Your task to perform on an android device: change keyboard looks Image 0: 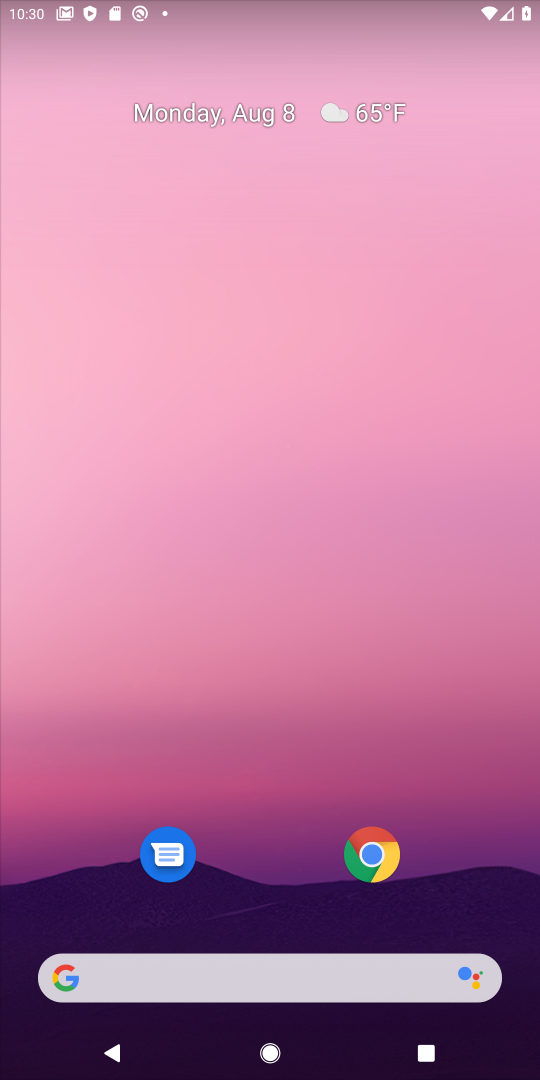
Step 0: drag from (276, 871) to (263, 9)
Your task to perform on an android device: change keyboard looks Image 1: 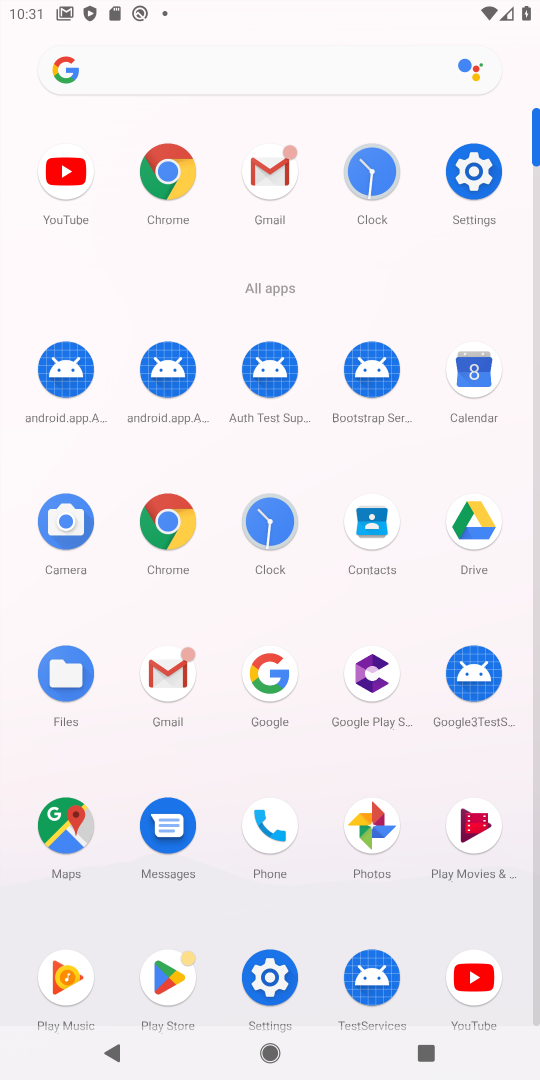
Step 1: click (463, 186)
Your task to perform on an android device: change keyboard looks Image 2: 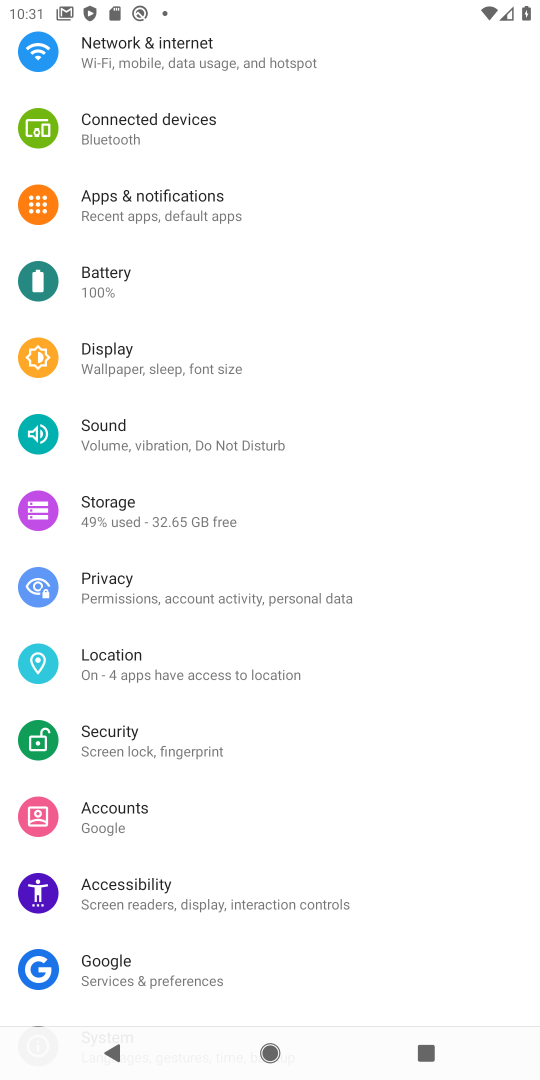
Step 2: drag from (190, 770) to (204, 325)
Your task to perform on an android device: change keyboard looks Image 3: 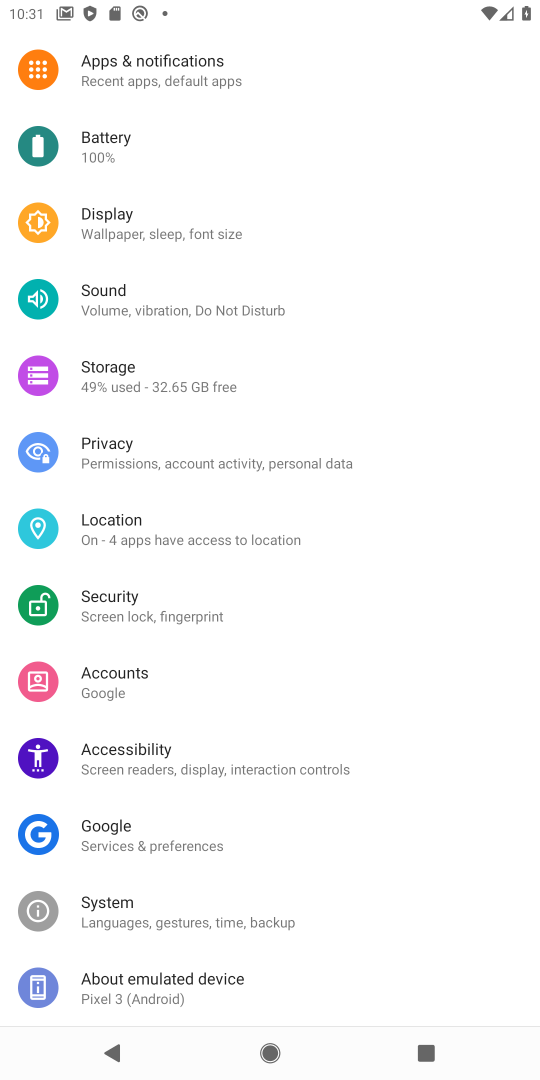
Step 3: click (125, 906)
Your task to perform on an android device: change keyboard looks Image 4: 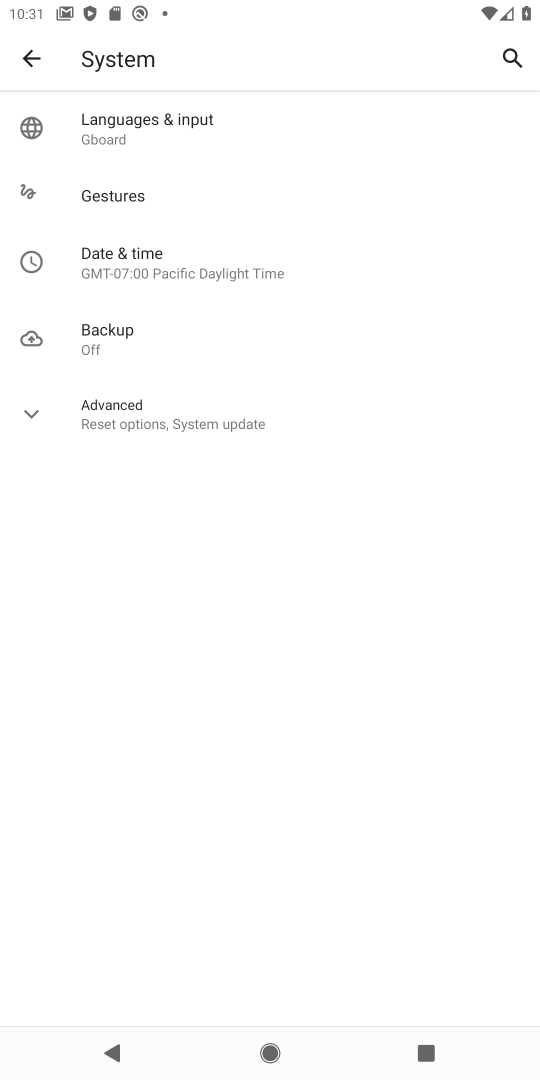
Step 4: click (102, 114)
Your task to perform on an android device: change keyboard looks Image 5: 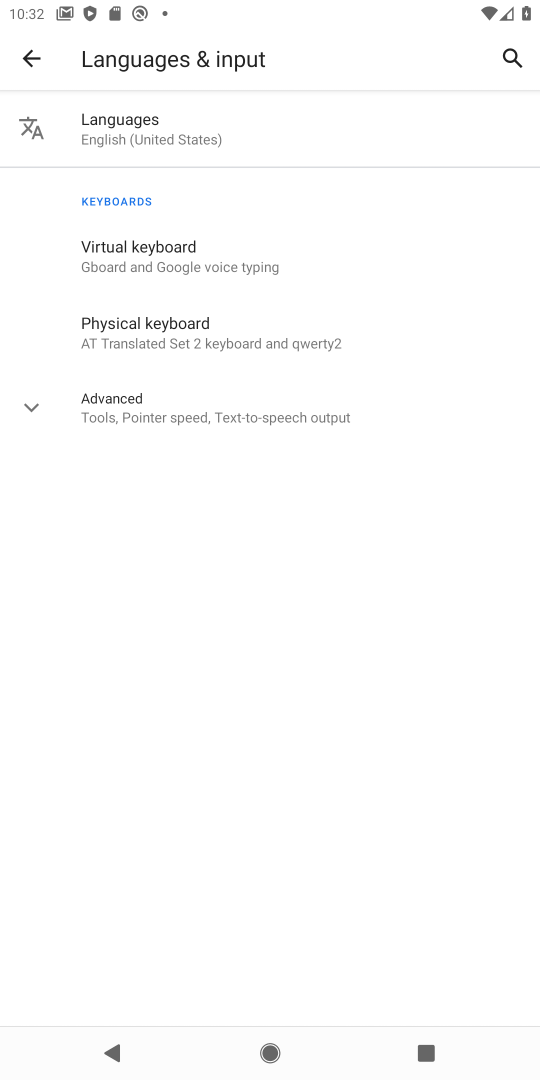
Step 5: click (189, 246)
Your task to perform on an android device: change keyboard looks Image 6: 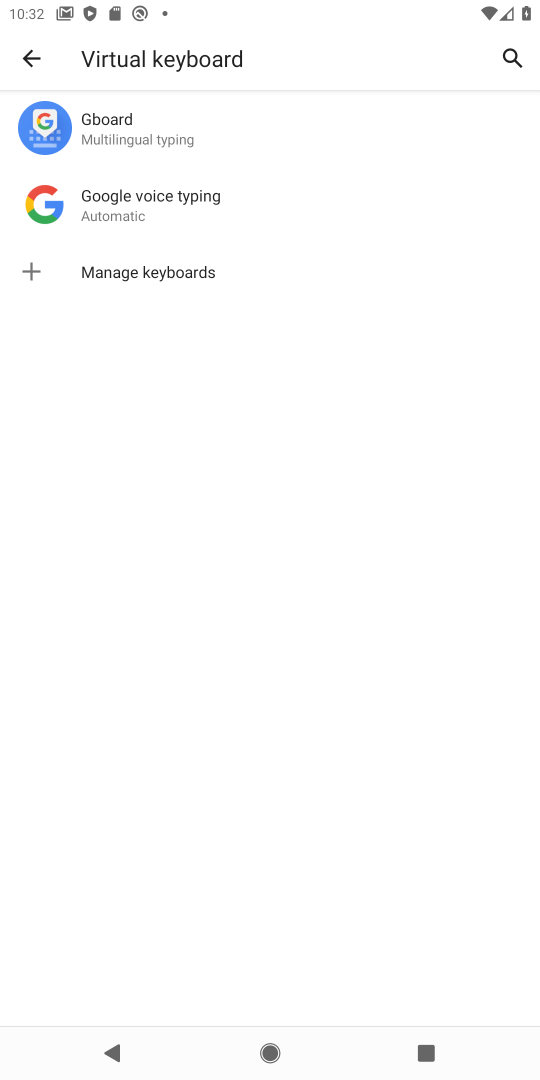
Step 6: click (152, 153)
Your task to perform on an android device: change keyboard looks Image 7: 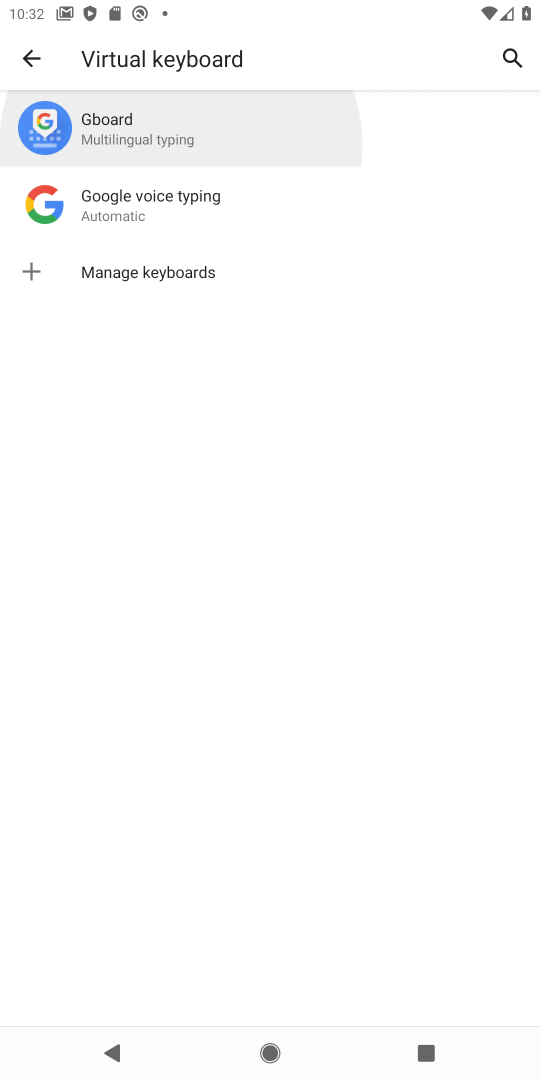
Step 7: click (189, 138)
Your task to perform on an android device: change keyboard looks Image 8: 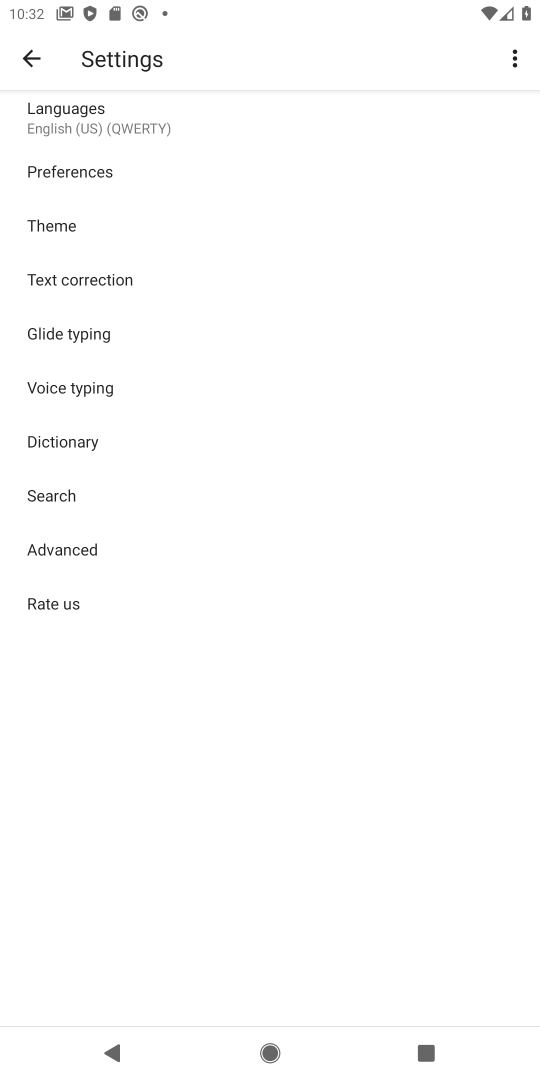
Step 8: click (113, 229)
Your task to perform on an android device: change keyboard looks Image 9: 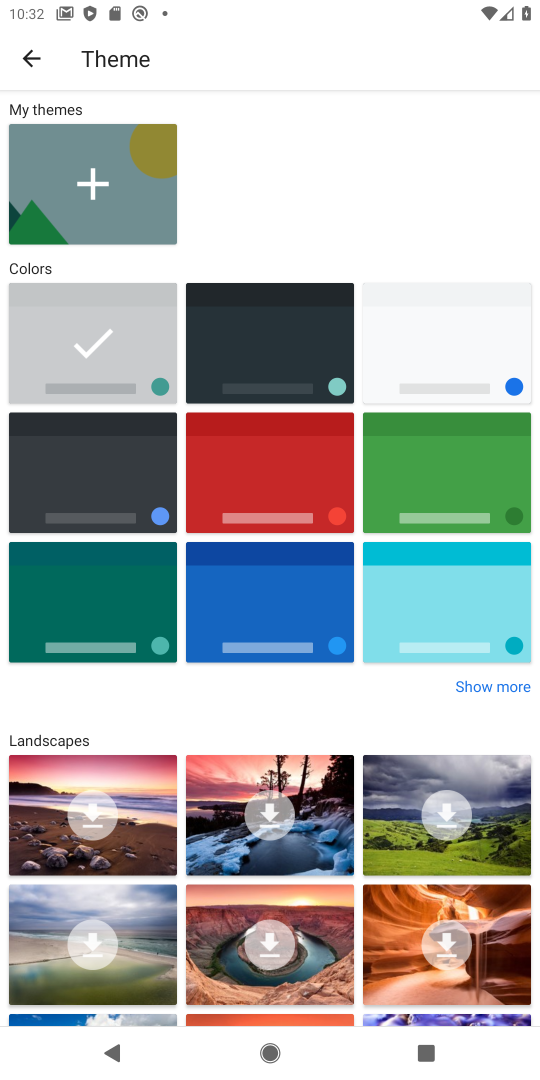
Step 9: click (293, 619)
Your task to perform on an android device: change keyboard looks Image 10: 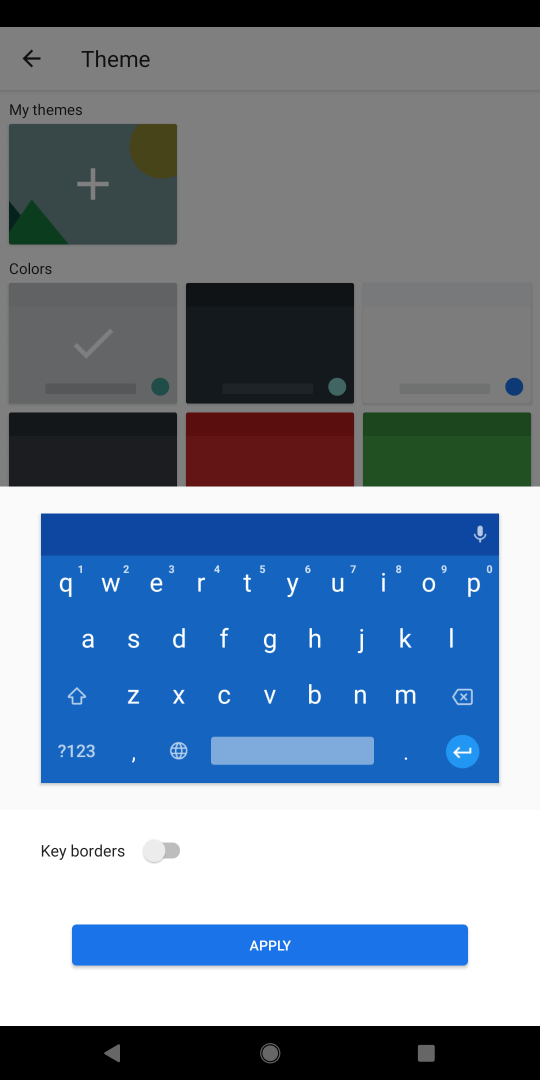
Step 10: click (167, 846)
Your task to perform on an android device: change keyboard looks Image 11: 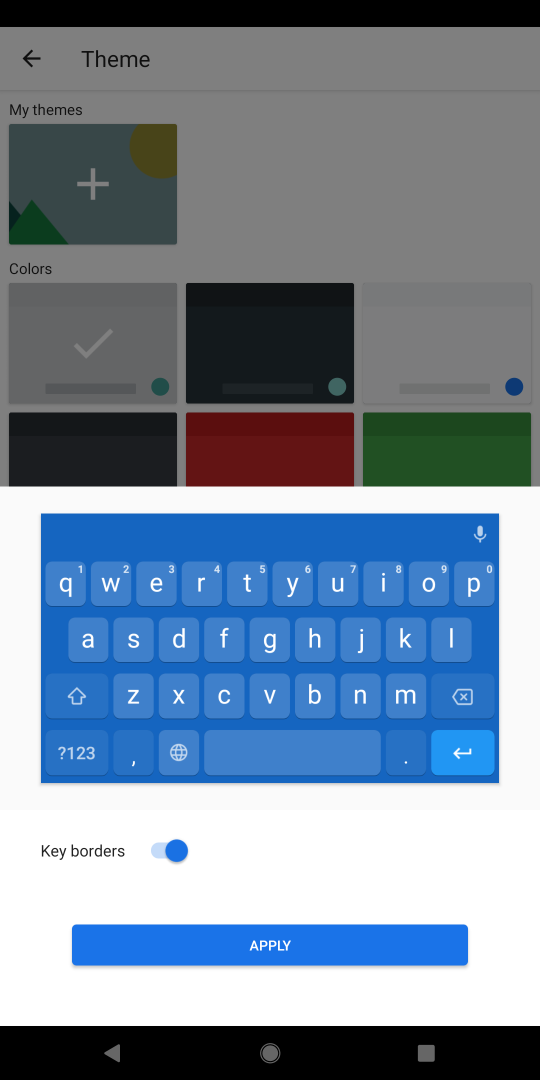
Step 11: click (257, 937)
Your task to perform on an android device: change keyboard looks Image 12: 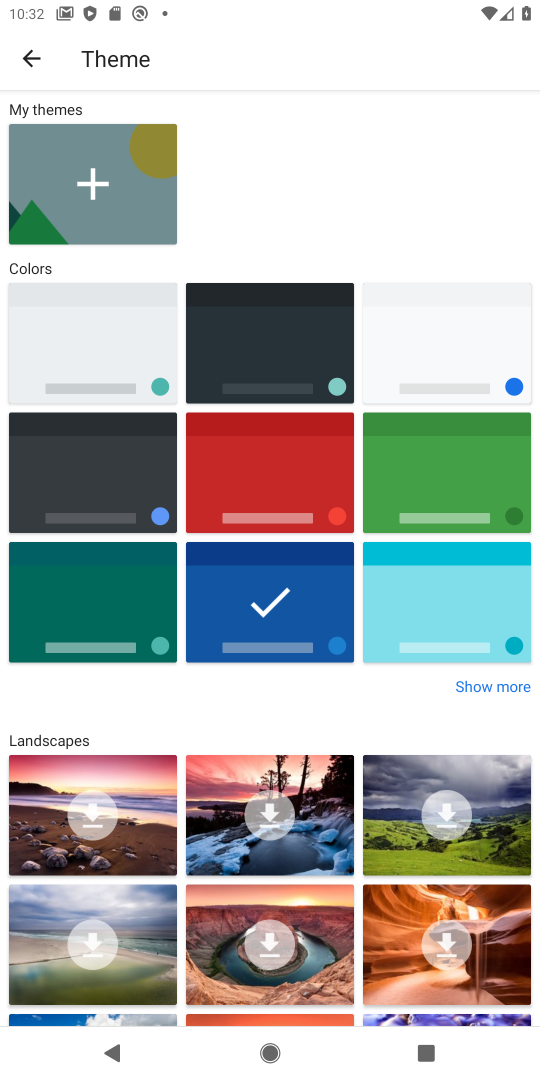
Step 12: task complete